Your task to perform on an android device: Go to Yahoo.com Image 0: 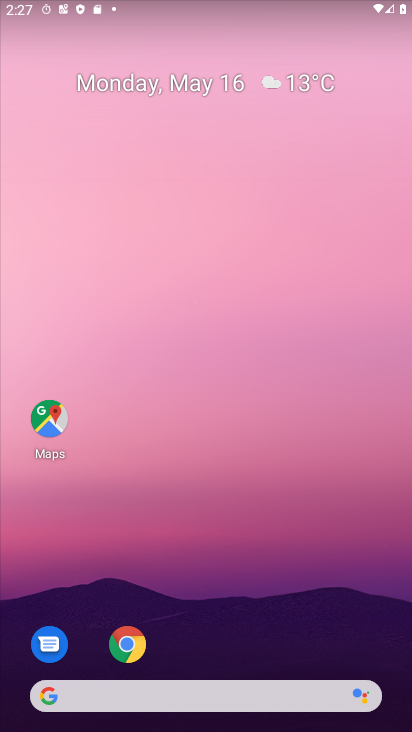
Step 0: drag from (257, 670) to (217, 314)
Your task to perform on an android device: Go to Yahoo.com Image 1: 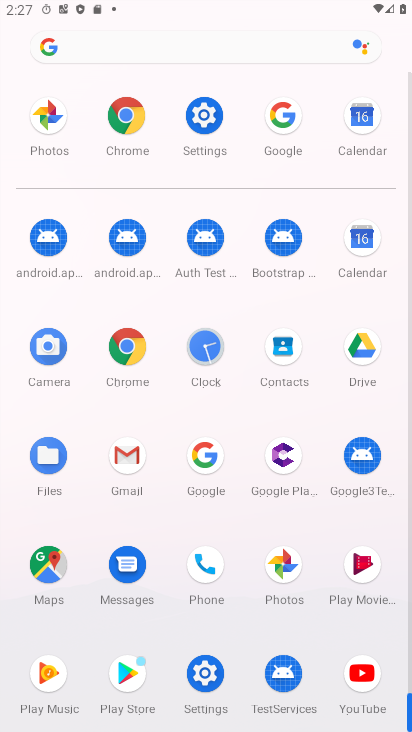
Step 1: click (141, 146)
Your task to perform on an android device: Go to Yahoo.com Image 2: 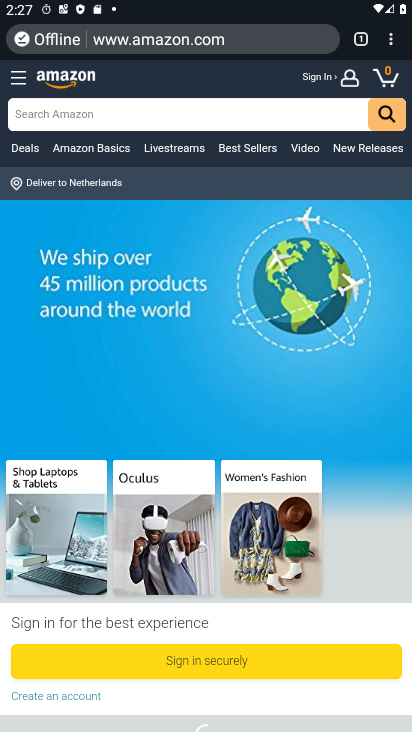
Step 2: click (233, 35)
Your task to perform on an android device: Go to Yahoo.com Image 3: 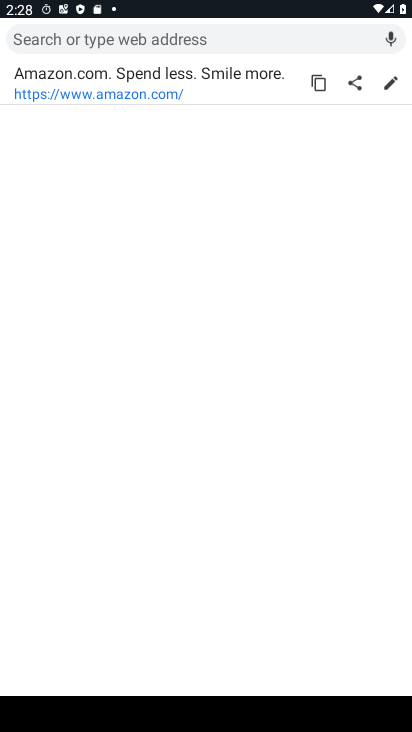
Step 3: type "yahoo"
Your task to perform on an android device: Go to Yahoo.com Image 4: 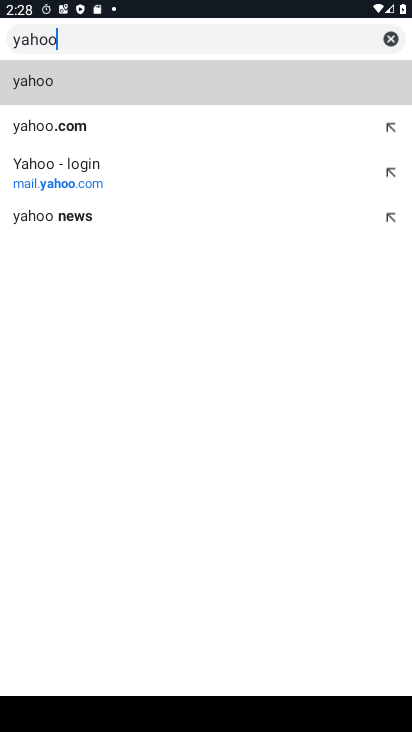
Step 4: click (165, 189)
Your task to perform on an android device: Go to Yahoo.com Image 5: 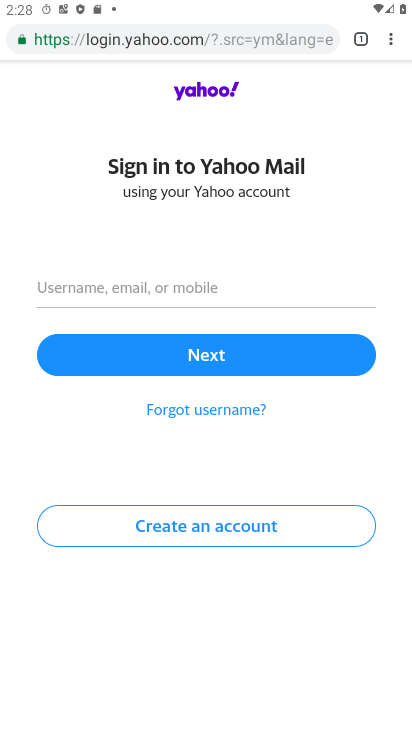
Step 5: task complete